Your task to perform on an android device: choose inbox layout in the gmail app Image 0: 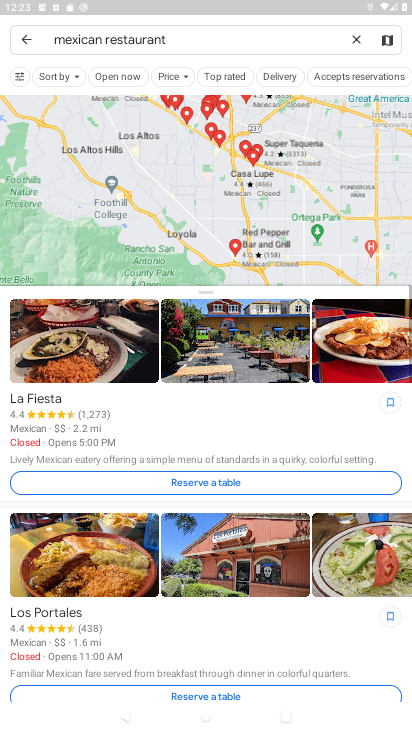
Step 0: drag from (247, 601) to (268, 301)
Your task to perform on an android device: choose inbox layout in the gmail app Image 1: 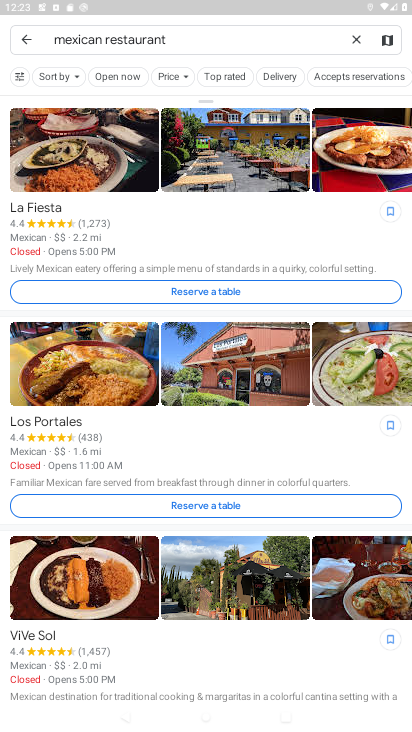
Step 1: press home button
Your task to perform on an android device: choose inbox layout in the gmail app Image 2: 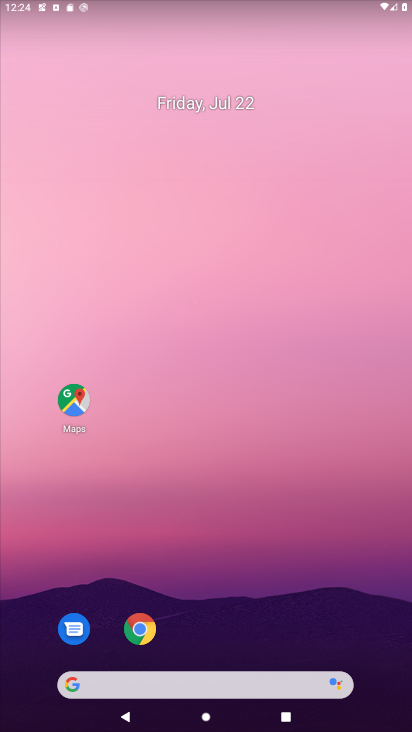
Step 2: drag from (201, 605) to (191, 56)
Your task to perform on an android device: choose inbox layout in the gmail app Image 3: 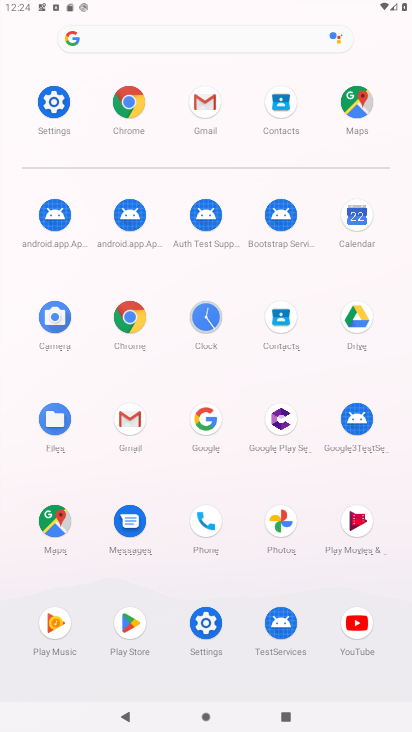
Step 3: click (128, 427)
Your task to perform on an android device: choose inbox layout in the gmail app Image 4: 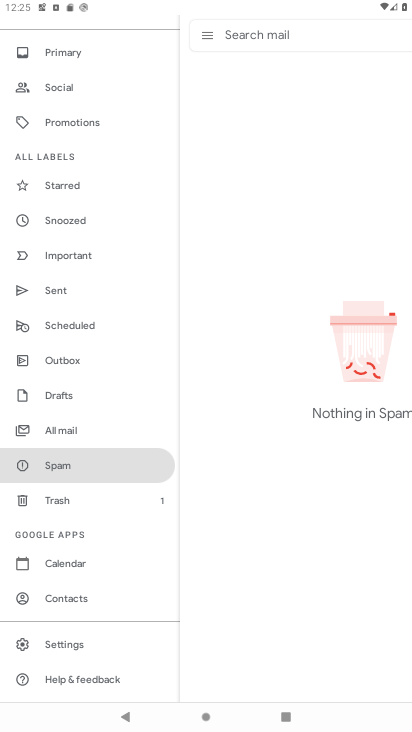
Step 4: task complete